Your task to perform on an android device: Is it going to rain today? Image 0: 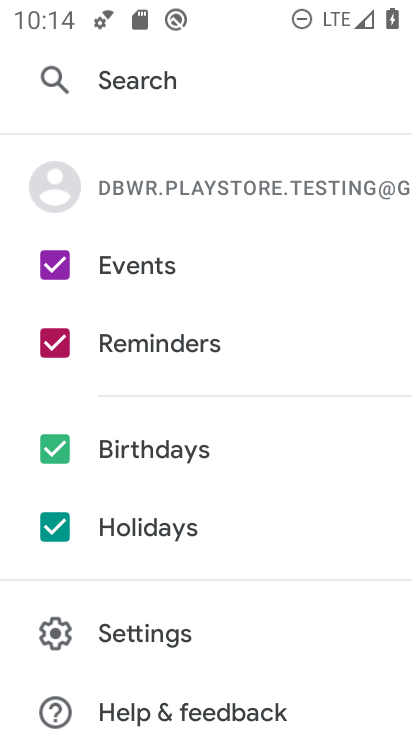
Step 0: press home button
Your task to perform on an android device: Is it going to rain today? Image 1: 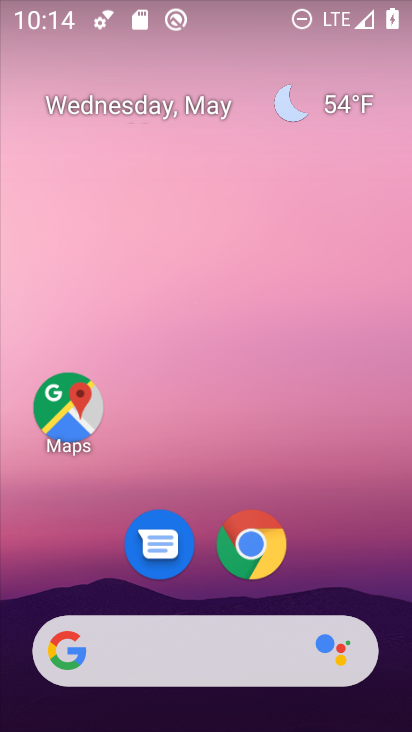
Step 1: click (332, 96)
Your task to perform on an android device: Is it going to rain today? Image 2: 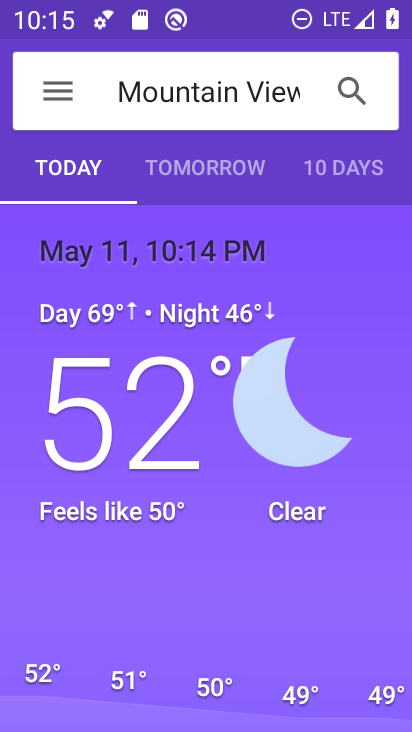
Step 2: task complete